Your task to perform on an android device: move an email to a new category in the gmail app Image 0: 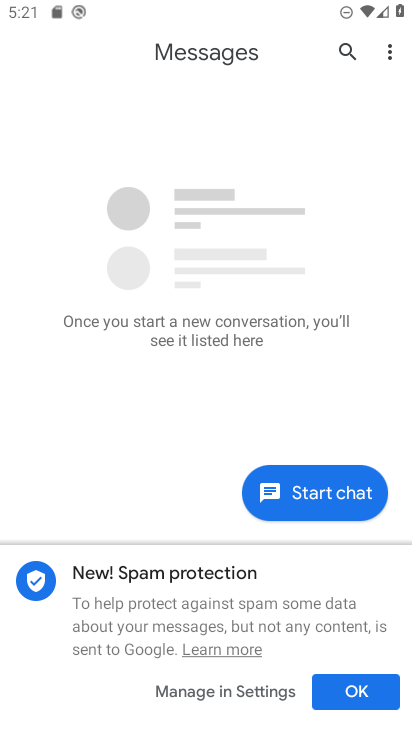
Step 0: press home button
Your task to perform on an android device: move an email to a new category in the gmail app Image 1: 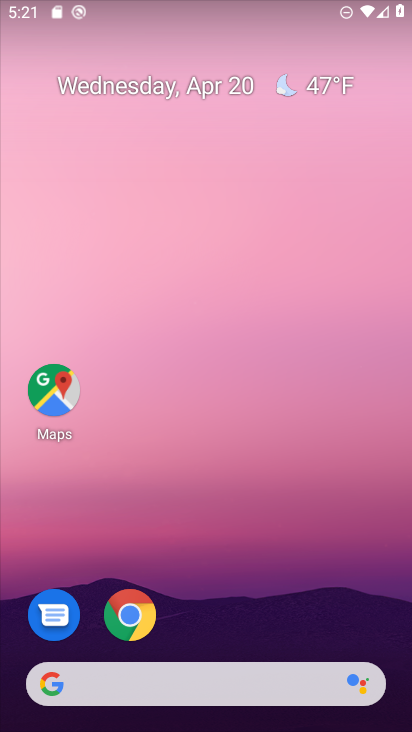
Step 1: drag from (280, 511) to (274, 110)
Your task to perform on an android device: move an email to a new category in the gmail app Image 2: 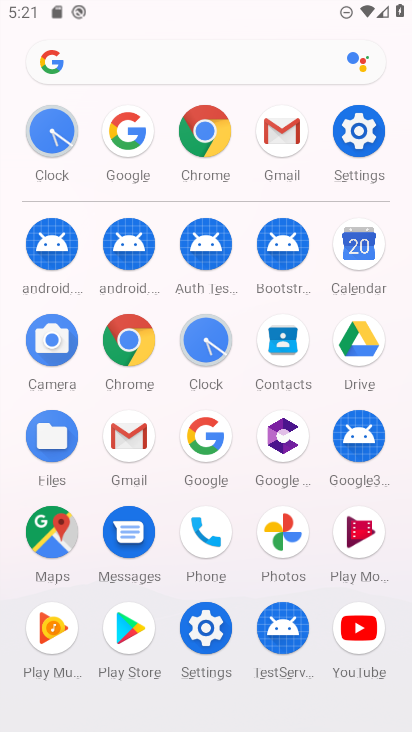
Step 2: click (276, 139)
Your task to perform on an android device: move an email to a new category in the gmail app Image 3: 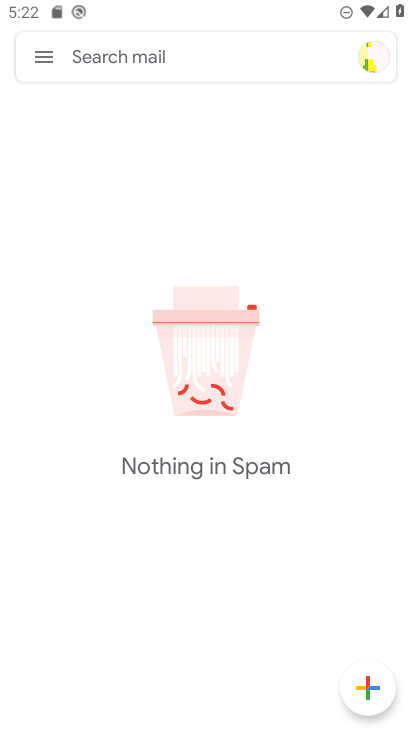
Step 3: click (48, 52)
Your task to perform on an android device: move an email to a new category in the gmail app Image 4: 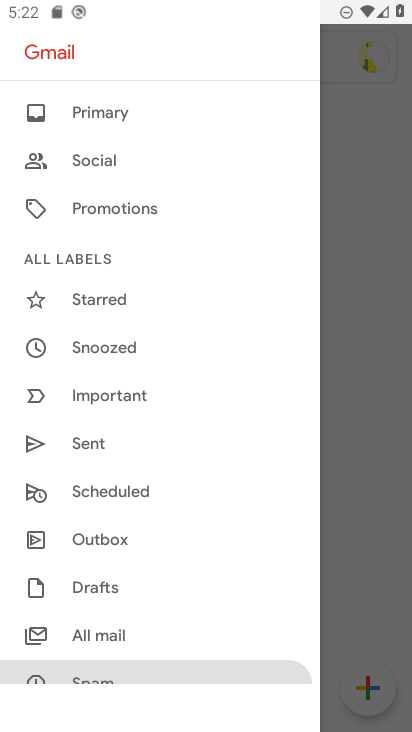
Step 4: click (103, 630)
Your task to perform on an android device: move an email to a new category in the gmail app Image 5: 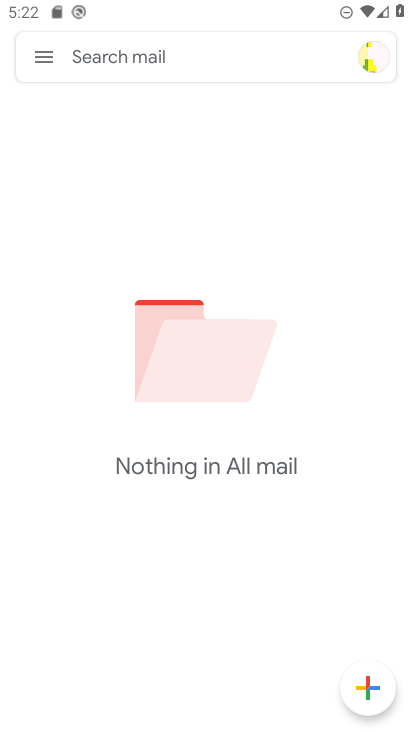
Step 5: task complete